Your task to perform on an android device: Open the stopwatch Image 0: 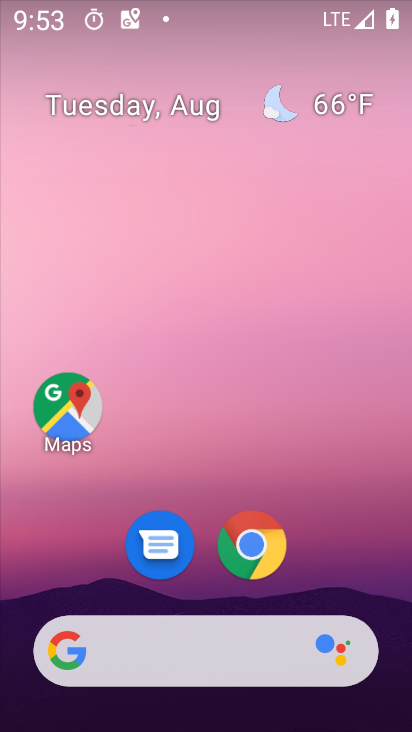
Step 0: drag from (255, 604) to (262, 122)
Your task to perform on an android device: Open the stopwatch Image 1: 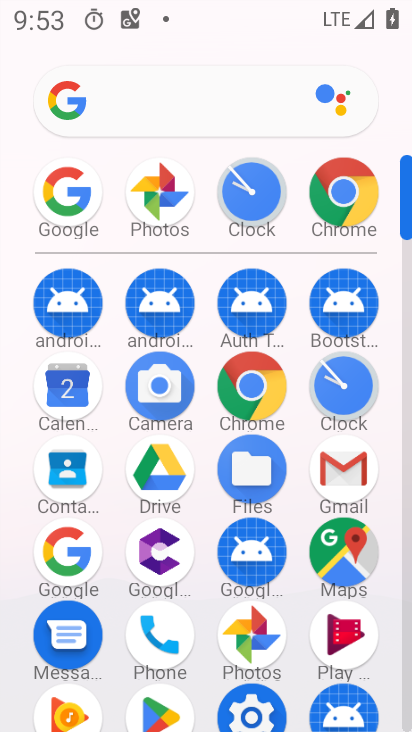
Step 1: click (351, 398)
Your task to perform on an android device: Open the stopwatch Image 2: 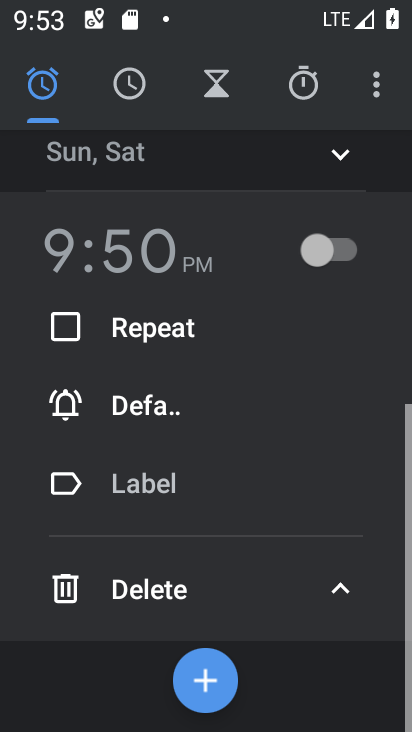
Step 2: click (209, 90)
Your task to perform on an android device: Open the stopwatch Image 3: 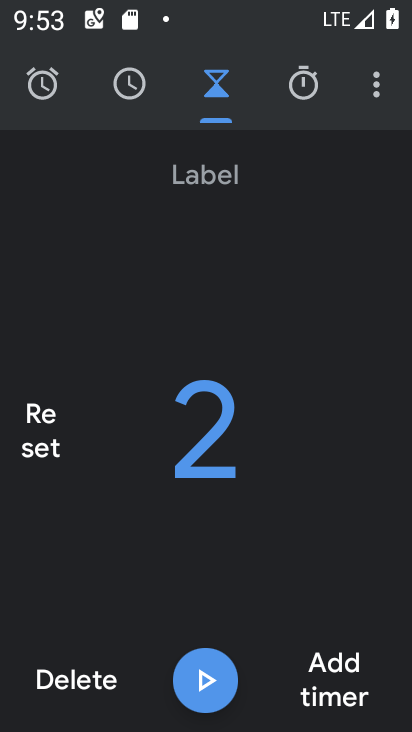
Step 3: click (292, 89)
Your task to perform on an android device: Open the stopwatch Image 4: 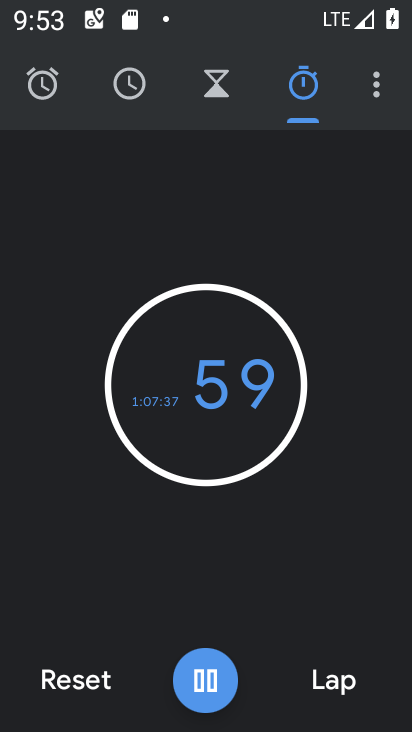
Step 4: task complete